Your task to perform on an android device: Open calendar and show me the fourth week of next month Image 0: 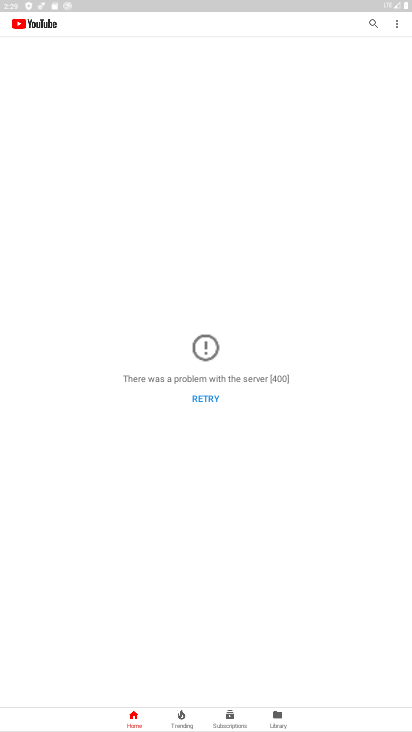
Step 0: press home button
Your task to perform on an android device: Open calendar and show me the fourth week of next month Image 1: 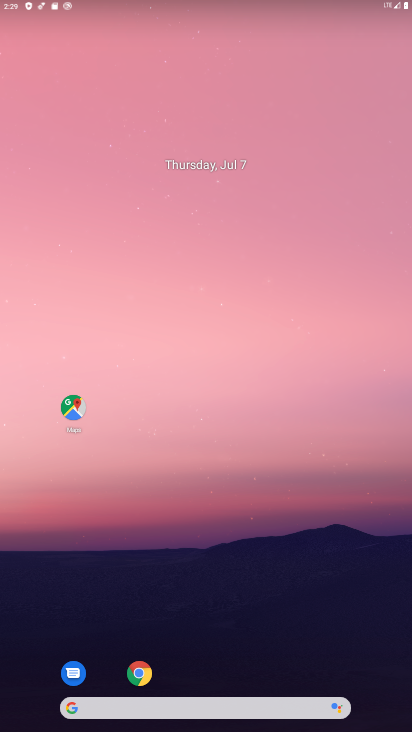
Step 1: drag from (278, 633) to (318, 78)
Your task to perform on an android device: Open calendar and show me the fourth week of next month Image 2: 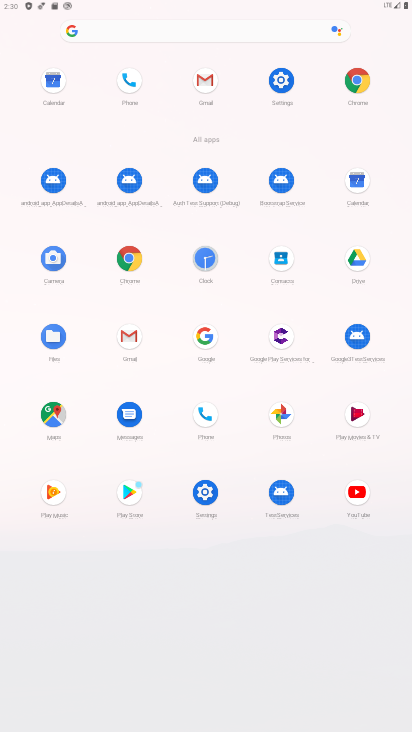
Step 2: click (348, 179)
Your task to perform on an android device: Open calendar and show me the fourth week of next month Image 3: 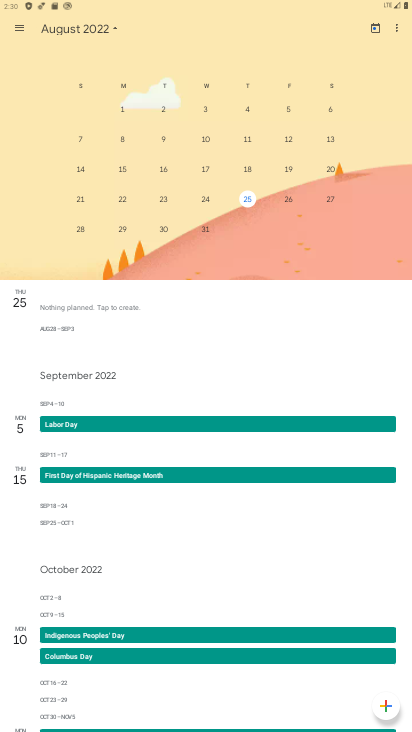
Step 3: click (238, 200)
Your task to perform on an android device: Open calendar and show me the fourth week of next month Image 4: 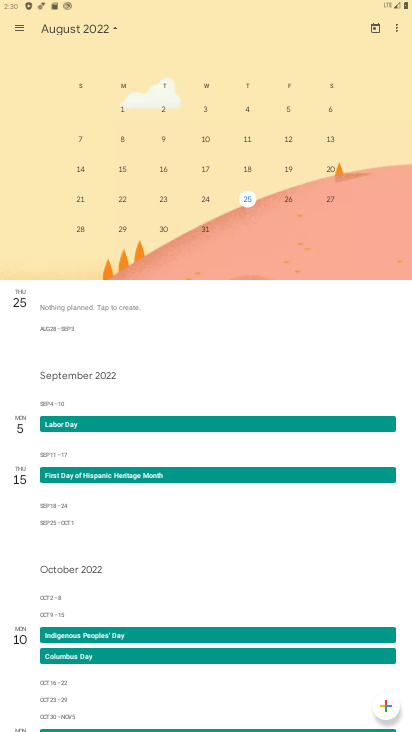
Step 4: task complete